Your task to perform on an android device: Go to notification settings Image 0: 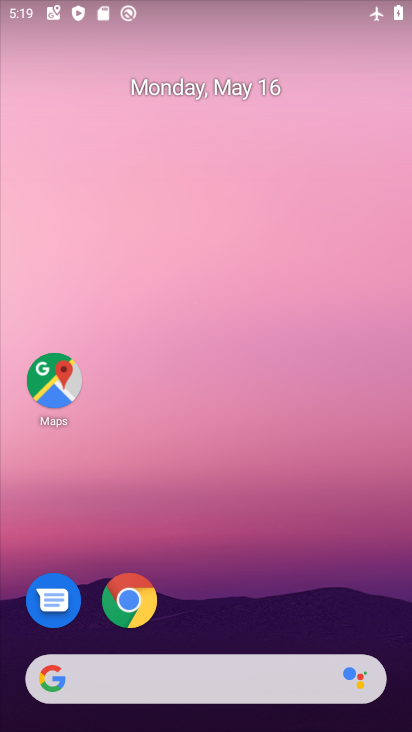
Step 0: drag from (233, 633) to (170, 142)
Your task to perform on an android device: Go to notification settings Image 1: 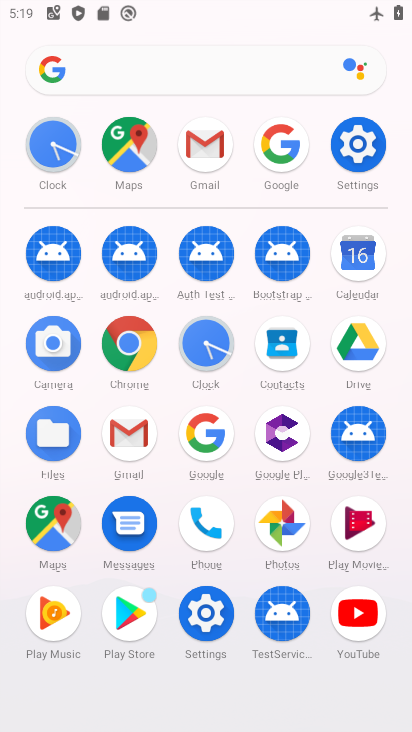
Step 1: click (358, 166)
Your task to perform on an android device: Go to notification settings Image 2: 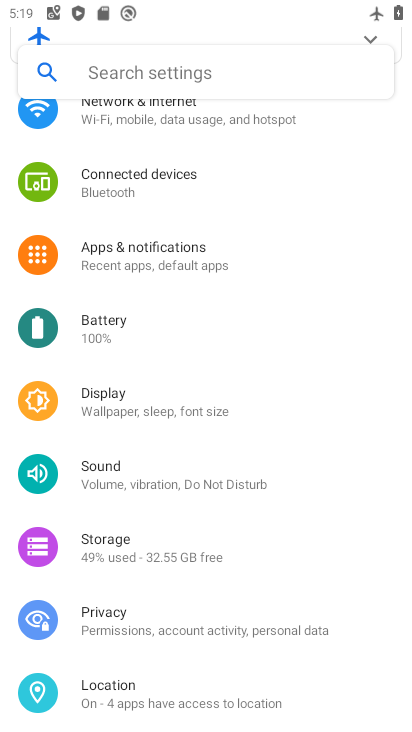
Step 2: click (180, 246)
Your task to perform on an android device: Go to notification settings Image 3: 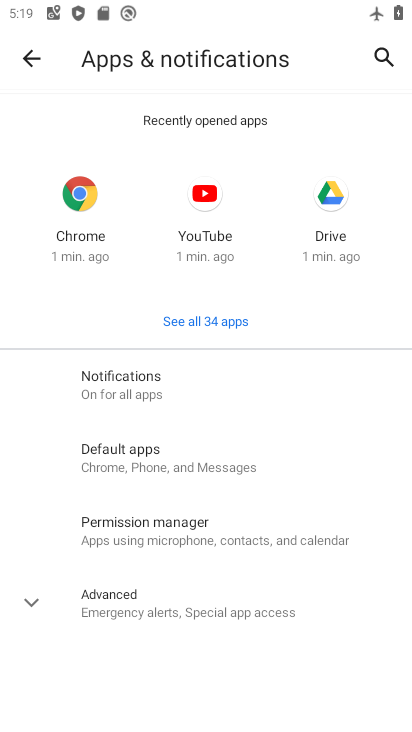
Step 3: click (184, 387)
Your task to perform on an android device: Go to notification settings Image 4: 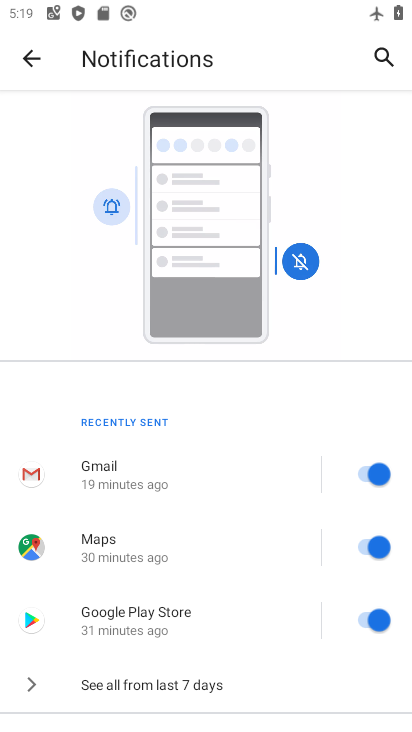
Step 4: task complete